Your task to perform on an android device: What's on my calendar tomorrow? Image 0: 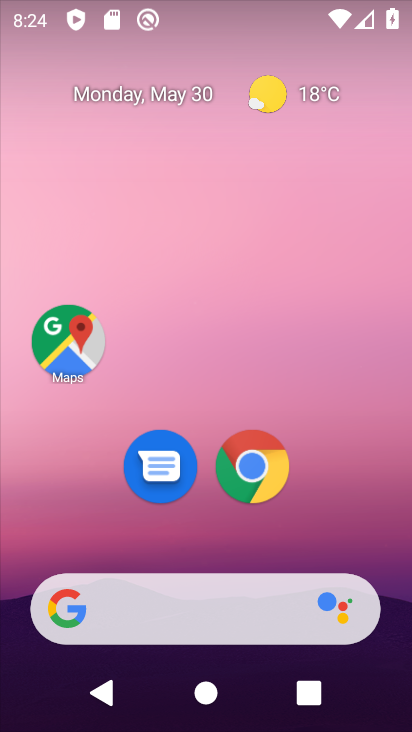
Step 0: drag from (307, 488) to (320, 35)
Your task to perform on an android device: What's on my calendar tomorrow? Image 1: 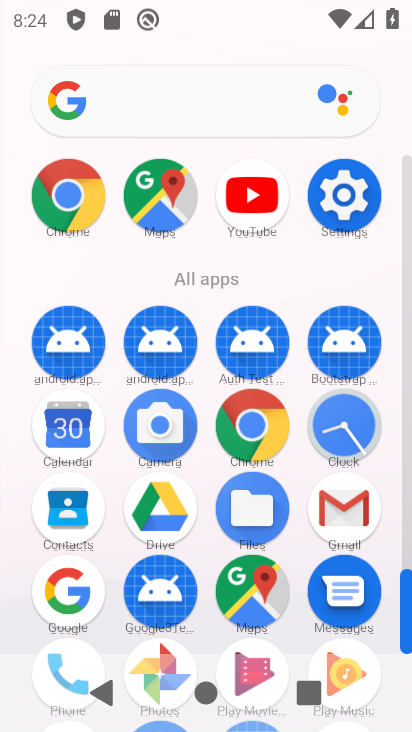
Step 1: click (66, 436)
Your task to perform on an android device: What's on my calendar tomorrow? Image 2: 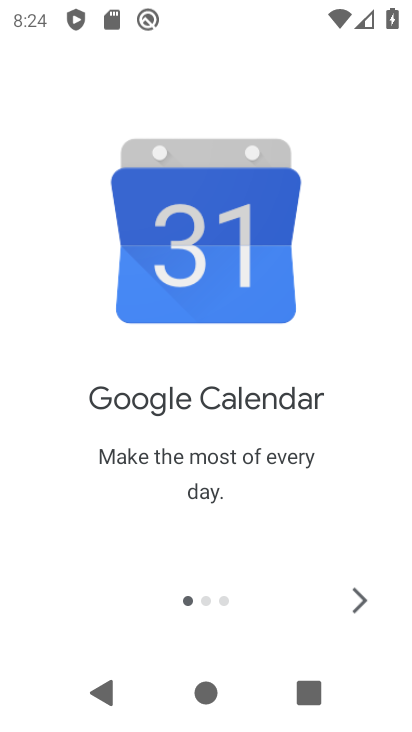
Step 2: click (359, 602)
Your task to perform on an android device: What's on my calendar tomorrow? Image 3: 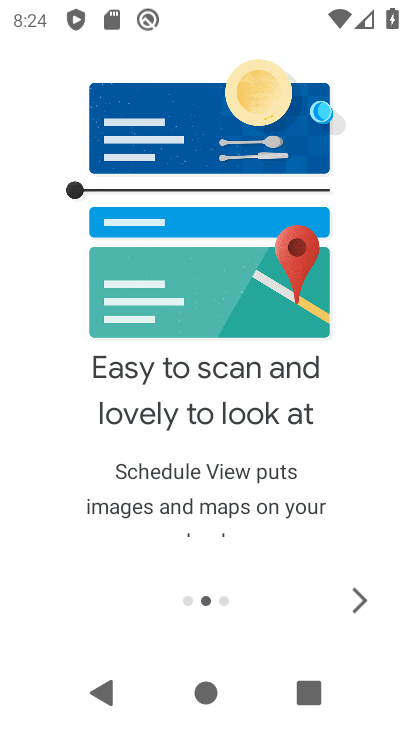
Step 3: click (359, 602)
Your task to perform on an android device: What's on my calendar tomorrow? Image 4: 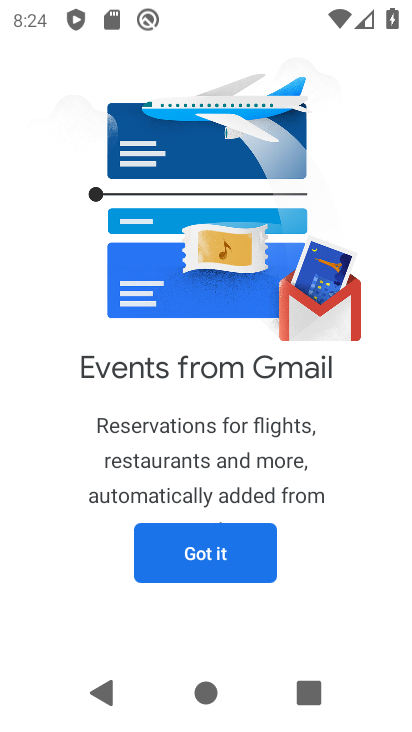
Step 4: click (196, 540)
Your task to perform on an android device: What's on my calendar tomorrow? Image 5: 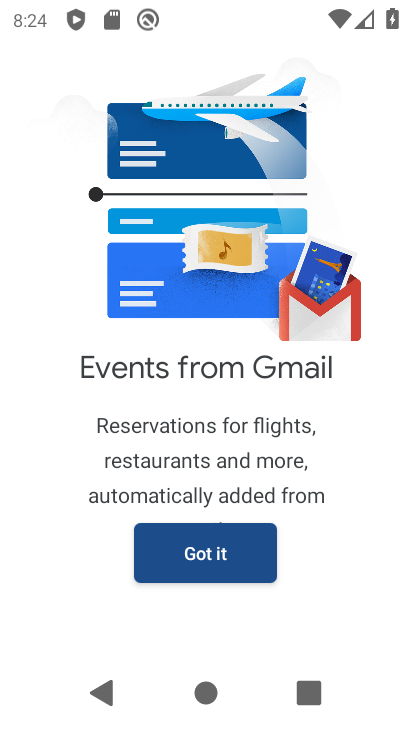
Step 5: click (196, 540)
Your task to perform on an android device: What's on my calendar tomorrow? Image 6: 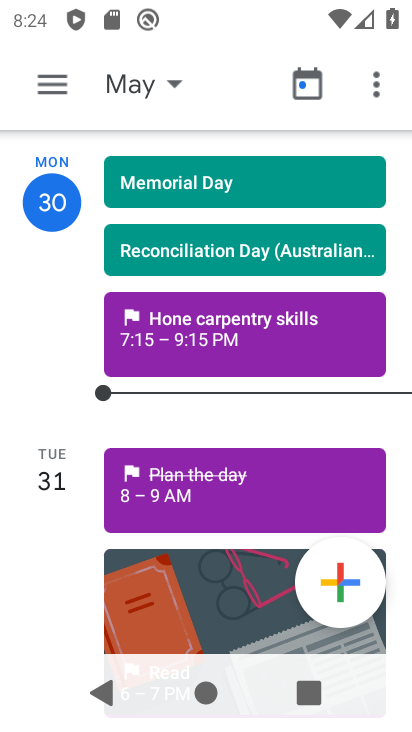
Step 6: click (126, 90)
Your task to perform on an android device: What's on my calendar tomorrow? Image 7: 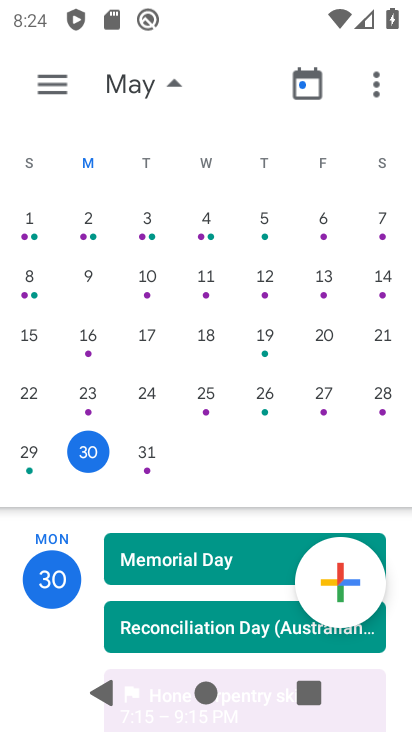
Step 7: drag from (370, 307) to (21, 275)
Your task to perform on an android device: What's on my calendar tomorrow? Image 8: 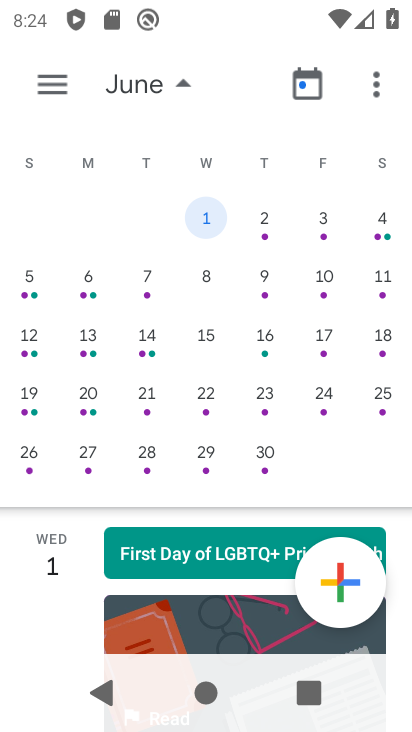
Step 8: click (199, 220)
Your task to perform on an android device: What's on my calendar tomorrow? Image 9: 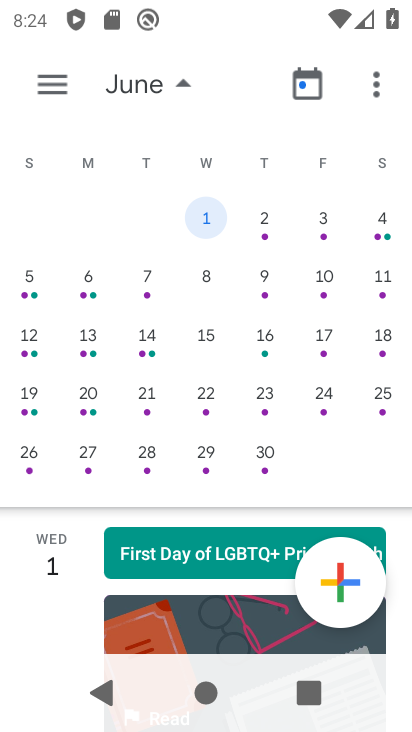
Step 9: task complete